Your task to perform on an android device: toggle translation in the chrome app Image 0: 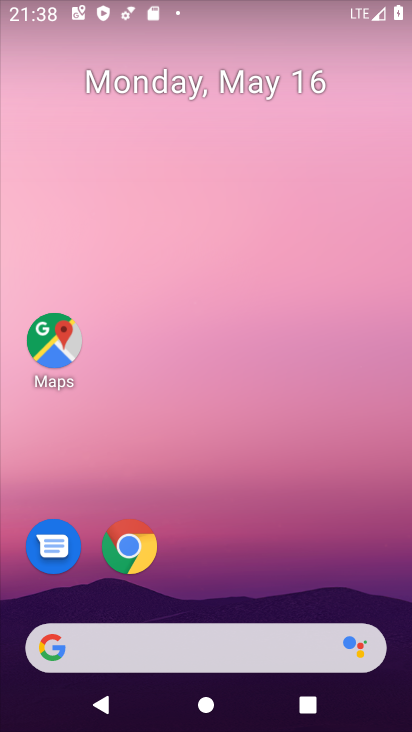
Step 0: drag from (251, 665) to (338, 116)
Your task to perform on an android device: toggle translation in the chrome app Image 1: 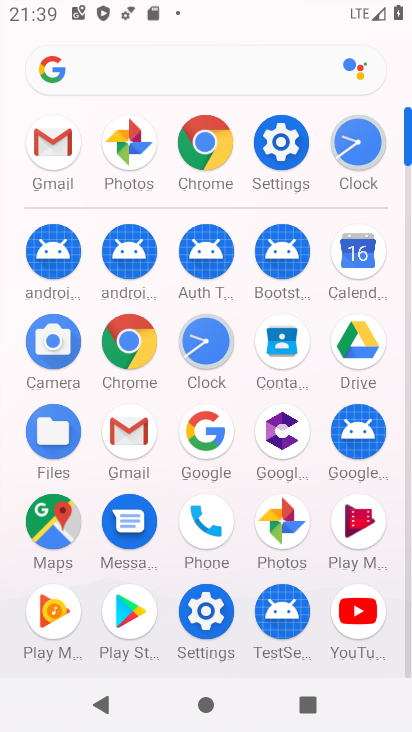
Step 1: click (207, 133)
Your task to perform on an android device: toggle translation in the chrome app Image 2: 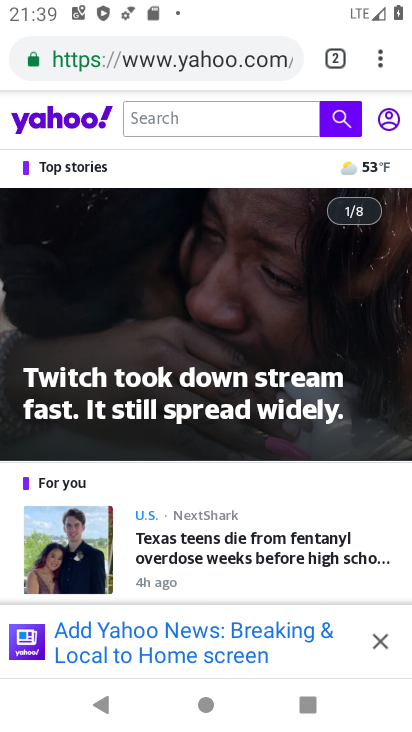
Step 2: click (370, 75)
Your task to perform on an android device: toggle translation in the chrome app Image 3: 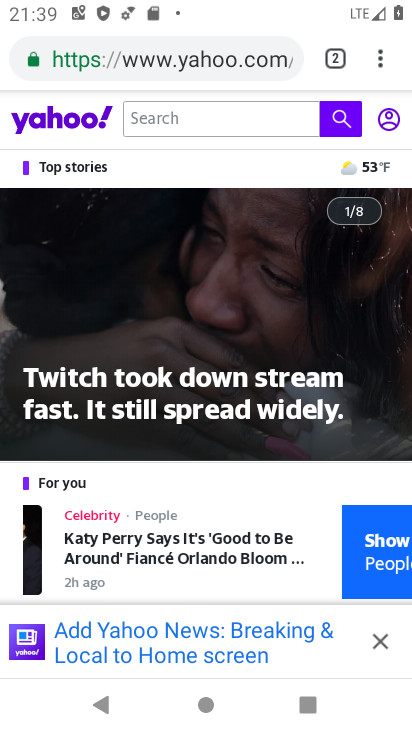
Step 3: click (383, 56)
Your task to perform on an android device: toggle translation in the chrome app Image 4: 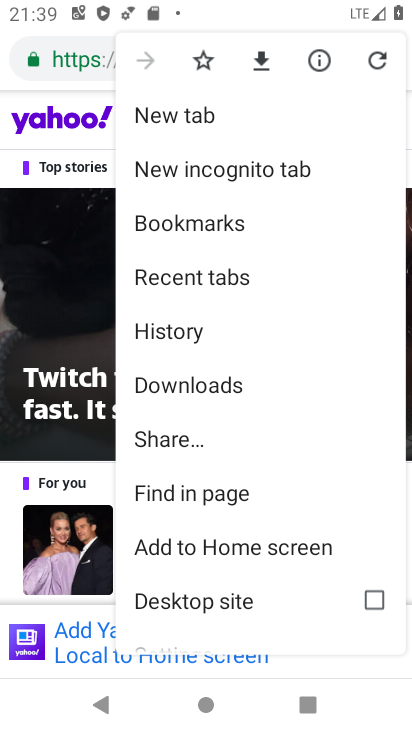
Step 4: drag from (195, 586) to (259, 379)
Your task to perform on an android device: toggle translation in the chrome app Image 5: 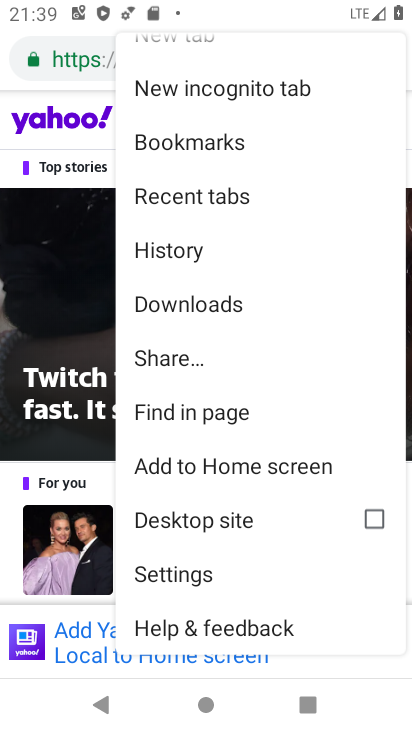
Step 5: click (192, 560)
Your task to perform on an android device: toggle translation in the chrome app Image 6: 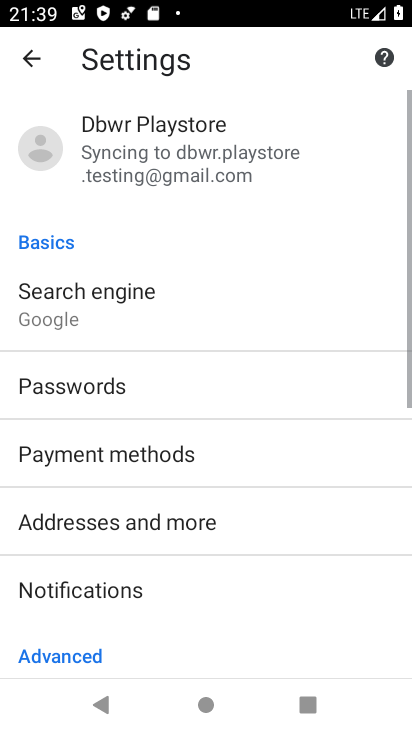
Step 6: drag from (192, 560) to (264, 341)
Your task to perform on an android device: toggle translation in the chrome app Image 7: 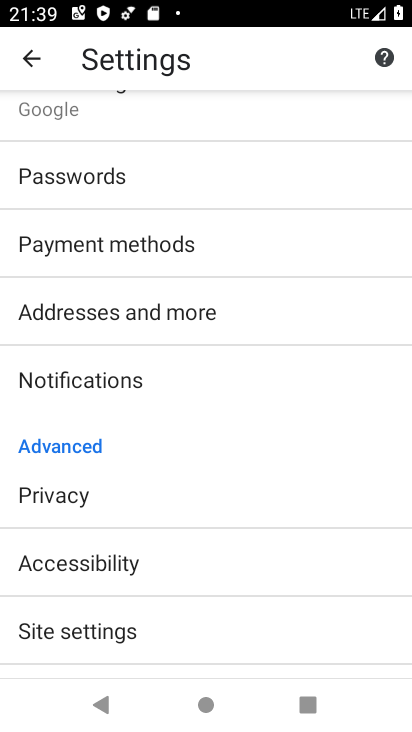
Step 7: drag from (131, 616) to (223, 388)
Your task to perform on an android device: toggle translation in the chrome app Image 8: 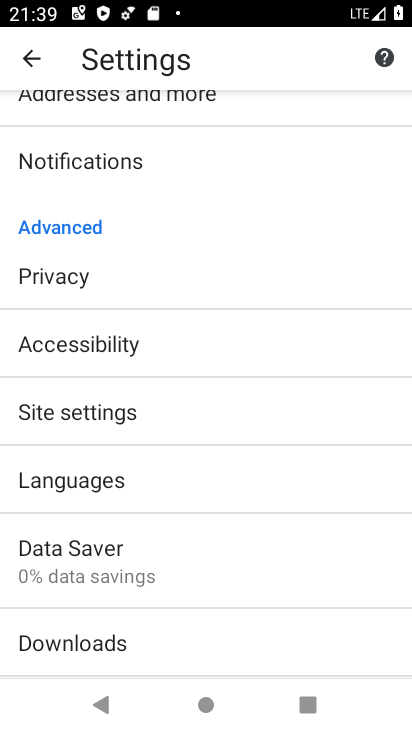
Step 8: click (133, 489)
Your task to perform on an android device: toggle translation in the chrome app Image 9: 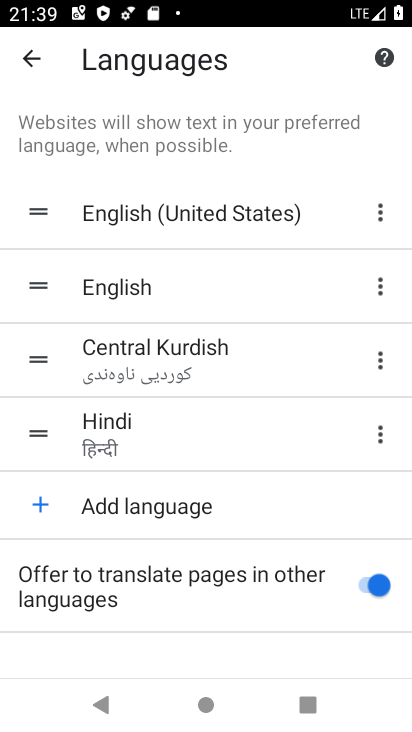
Step 9: task complete